Your task to perform on an android device: What is the news today? Image 0: 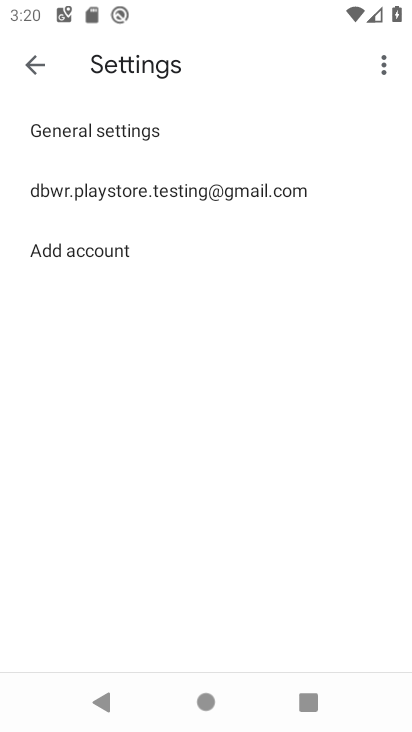
Step 0: press home button
Your task to perform on an android device: What is the news today? Image 1: 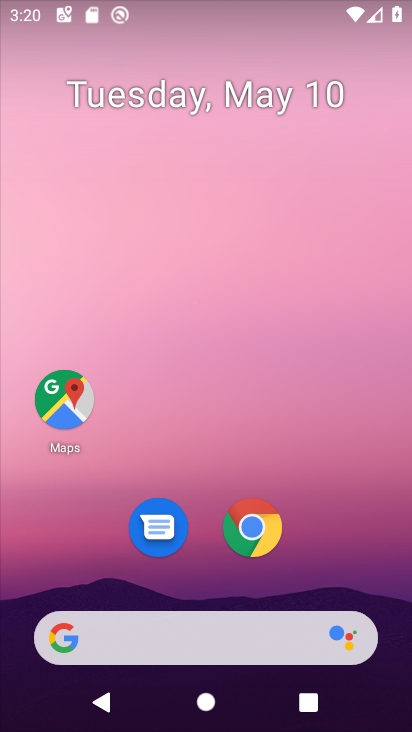
Step 1: drag from (122, 220) to (386, 226)
Your task to perform on an android device: What is the news today? Image 2: 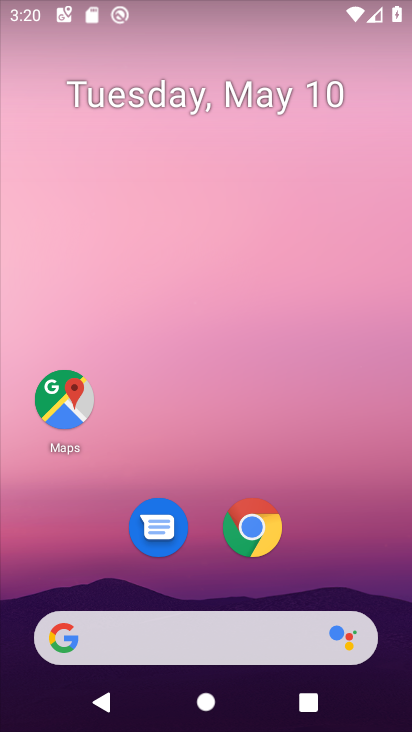
Step 2: drag from (2, 156) to (323, 169)
Your task to perform on an android device: What is the news today? Image 3: 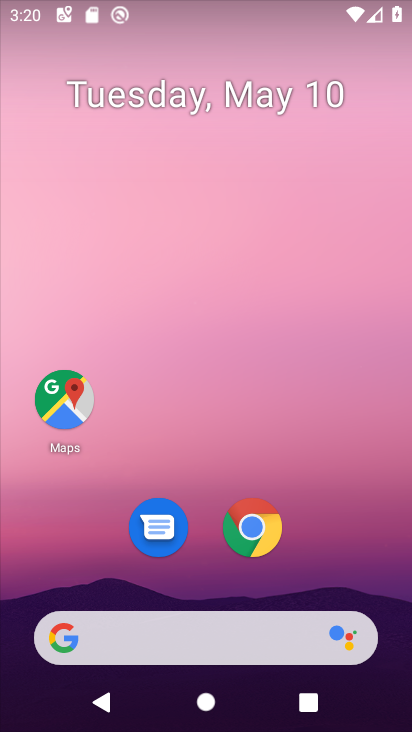
Step 3: drag from (1, 95) to (363, 109)
Your task to perform on an android device: What is the news today? Image 4: 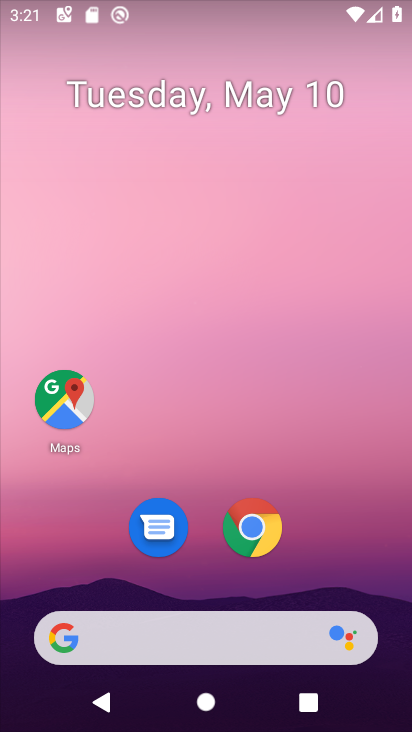
Step 4: drag from (403, 646) to (371, 189)
Your task to perform on an android device: What is the news today? Image 5: 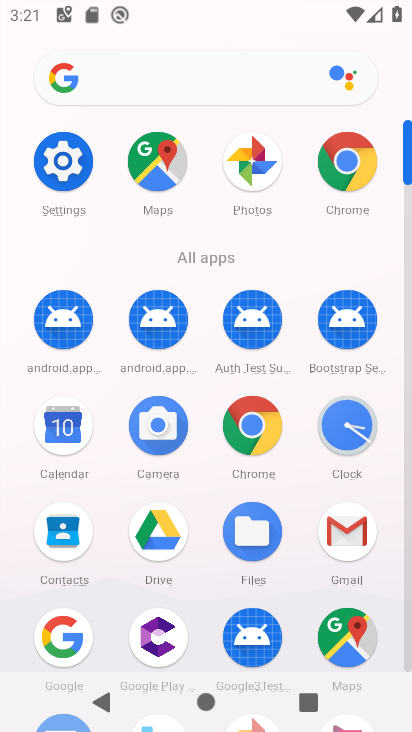
Step 5: click (70, 642)
Your task to perform on an android device: What is the news today? Image 6: 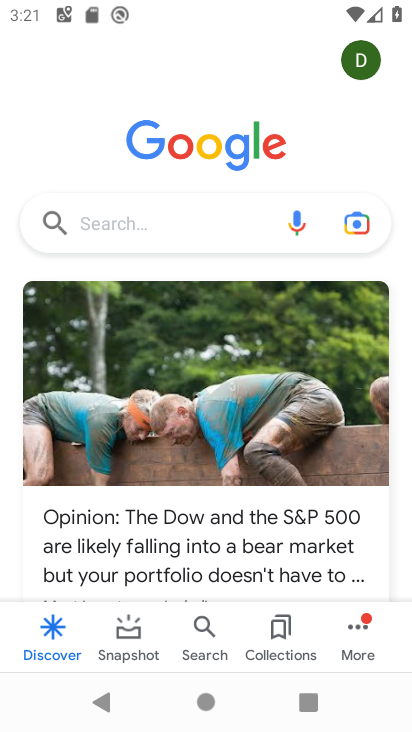
Step 6: task complete